Your task to perform on an android device: Go to eBay Image 0: 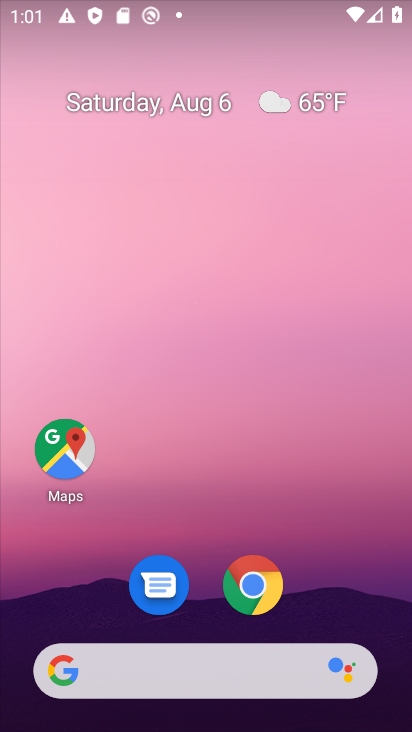
Step 0: click (221, 675)
Your task to perform on an android device: Go to eBay Image 1: 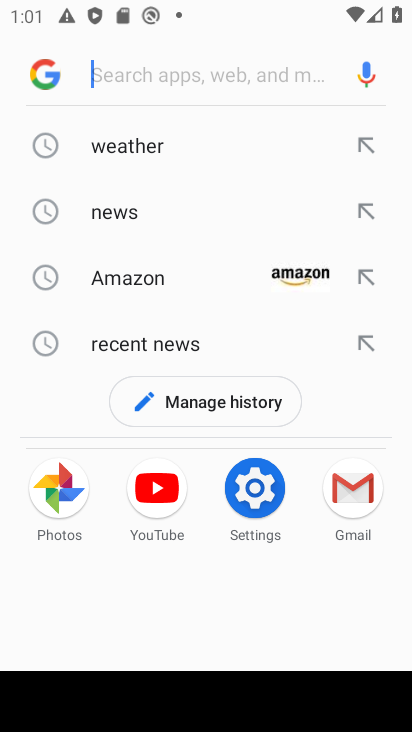
Step 1: type "ebay"
Your task to perform on an android device: Go to eBay Image 2: 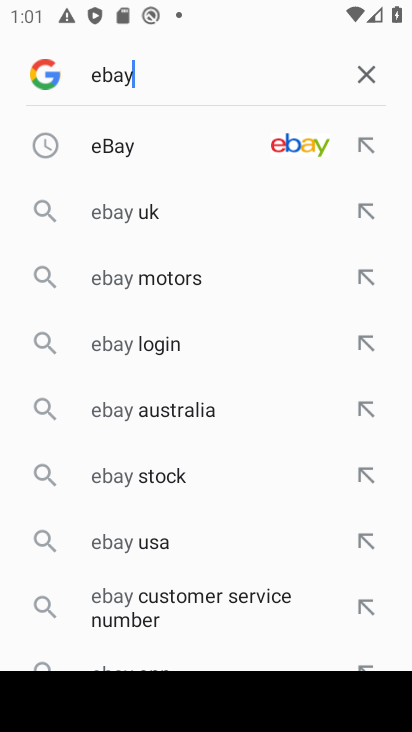
Step 2: click (217, 151)
Your task to perform on an android device: Go to eBay Image 3: 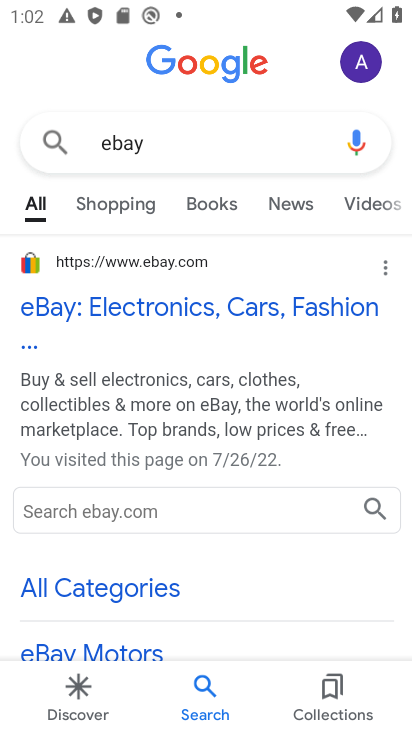
Step 3: click (50, 300)
Your task to perform on an android device: Go to eBay Image 4: 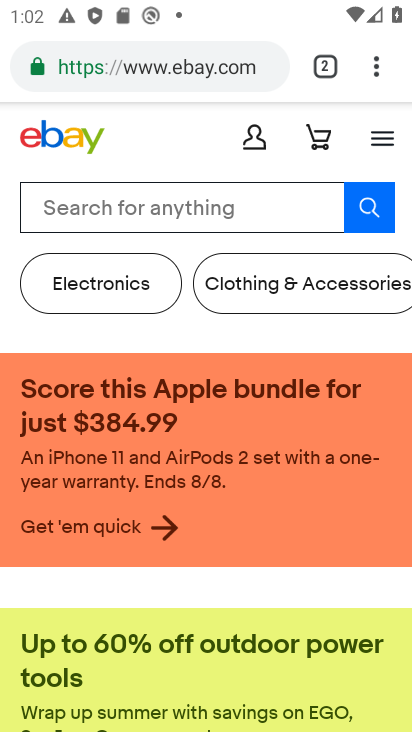
Step 4: task complete